Your task to perform on an android device: Do I have any events tomorrow? Image 0: 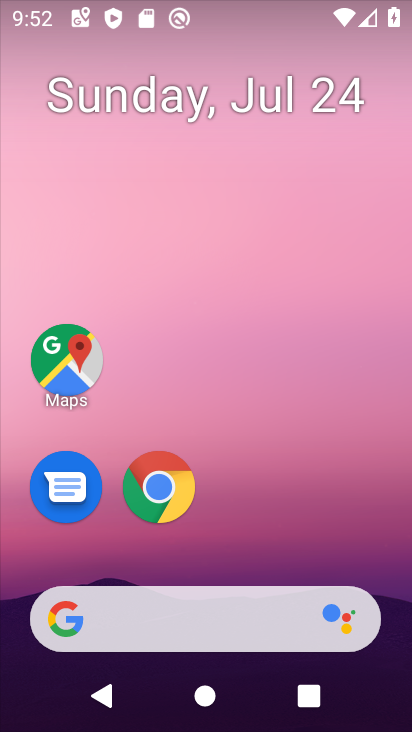
Step 0: drag from (238, 587) to (345, 3)
Your task to perform on an android device: Do I have any events tomorrow? Image 1: 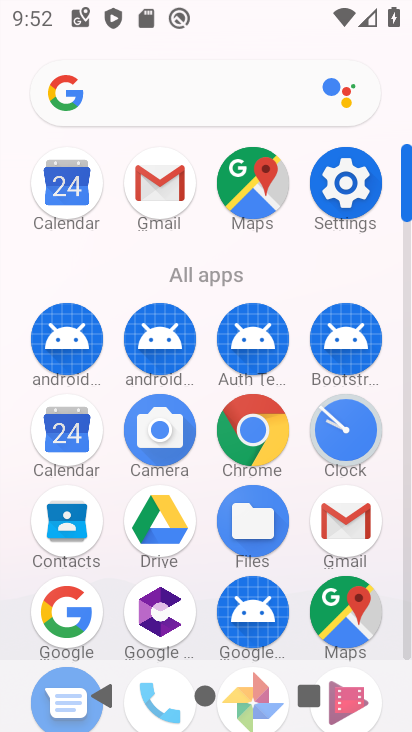
Step 1: click (53, 431)
Your task to perform on an android device: Do I have any events tomorrow? Image 2: 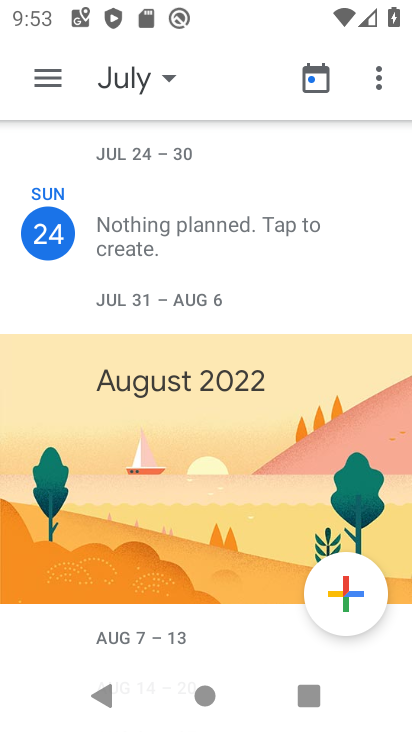
Step 2: click (171, 79)
Your task to perform on an android device: Do I have any events tomorrow? Image 3: 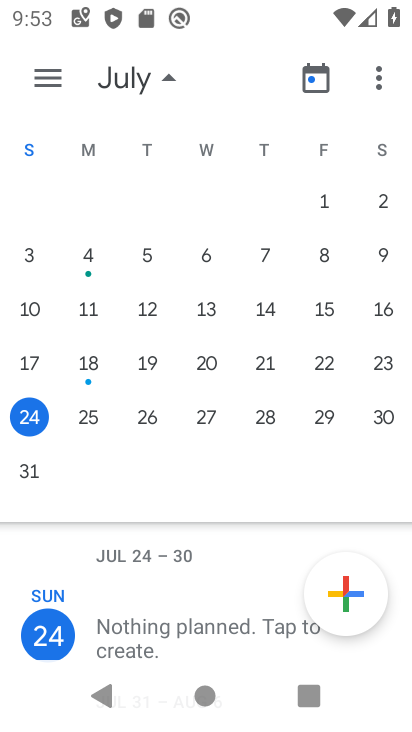
Step 3: click (98, 413)
Your task to perform on an android device: Do I have any events tomorrow? Image 4: 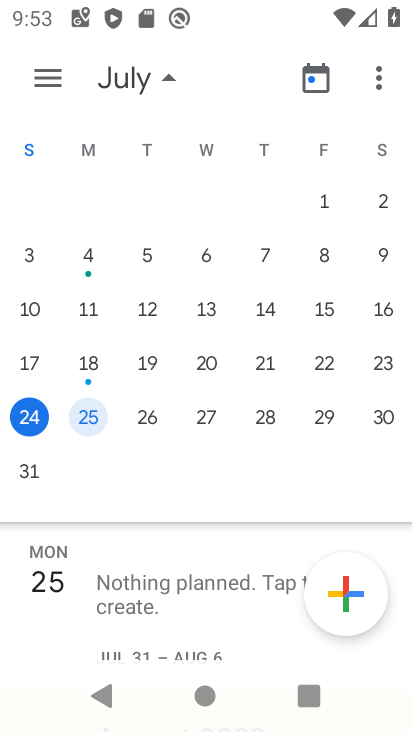
Step 4: task complete